Your task to perform on an android device: Go to sound settings Image 0: 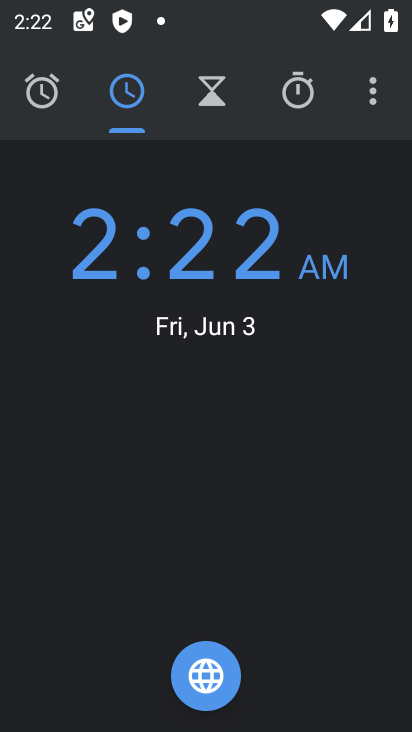
Step 0: press home button
Your task to perform on an android device: Go to sound settings Image 1: 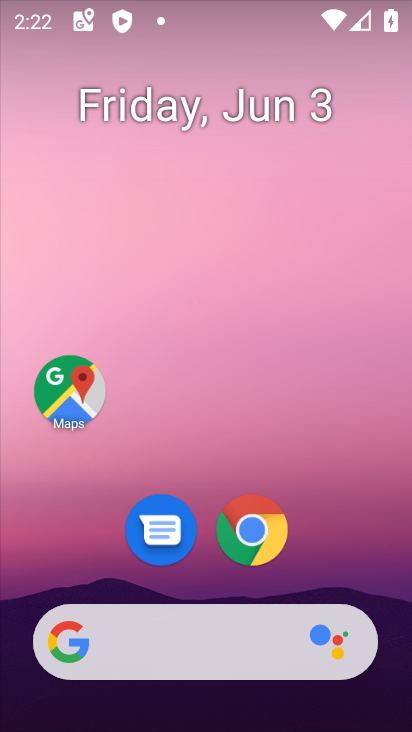
Step 1: drag from (347, 528) to (197, 119)
Your task to perform on an android device: Go to sound settings Image 2: 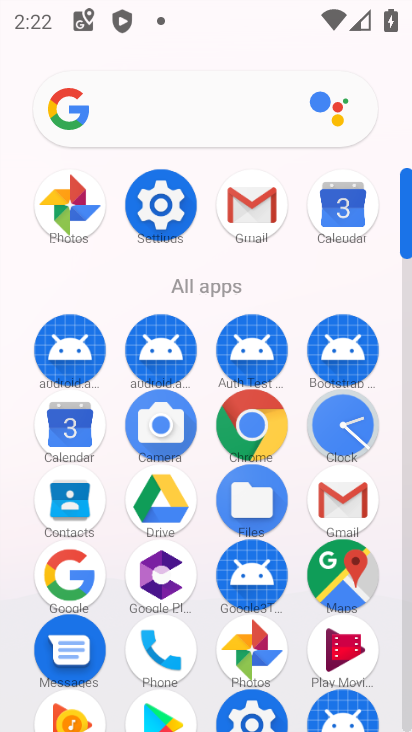
Step 2: click (158, 207)
Your task to perform on an android device: Go to sound settings Image 3: 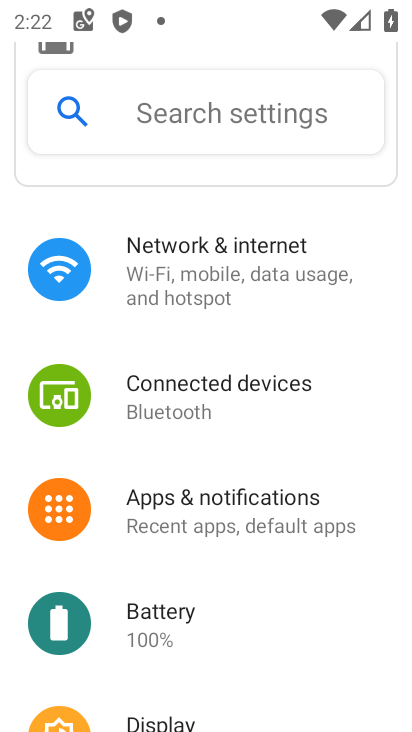
Step 3: drag from (229, 685) to (211, 264)
Your task to perform on an android device: Go to sound settings Image 4: 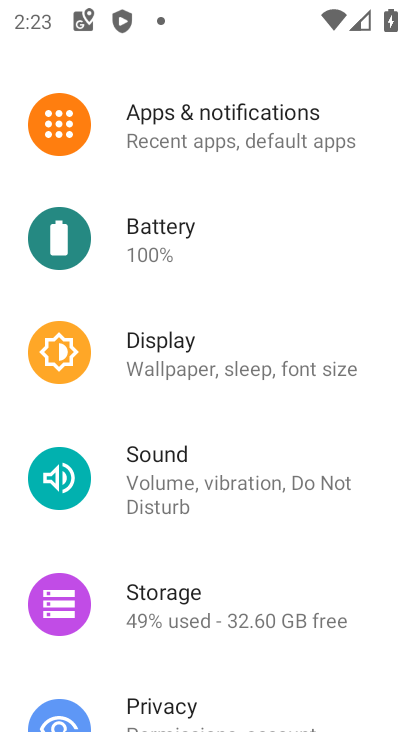
Step 4: click (144, 459)
Your task to perform on an android device: Go to sound settings Image 5: 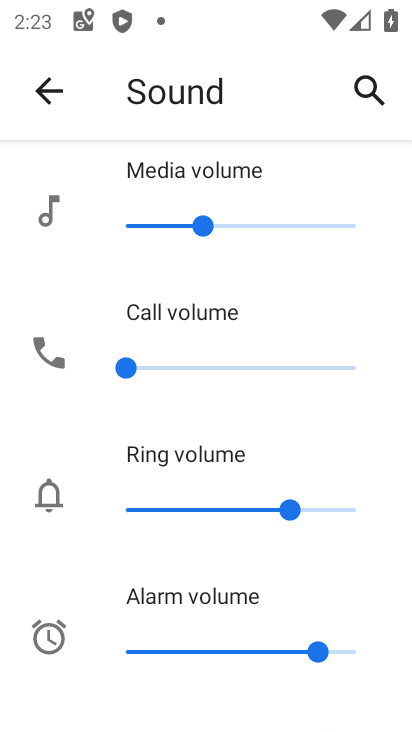
Step 5: task complete